Your task to perform on an android device: show emergency info Image 0: 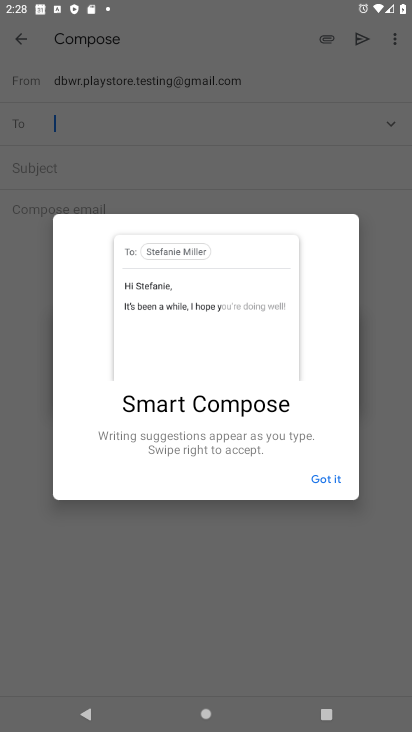
Step 0: press home button
Your task to perform on an android device: show emergency info Image 1: 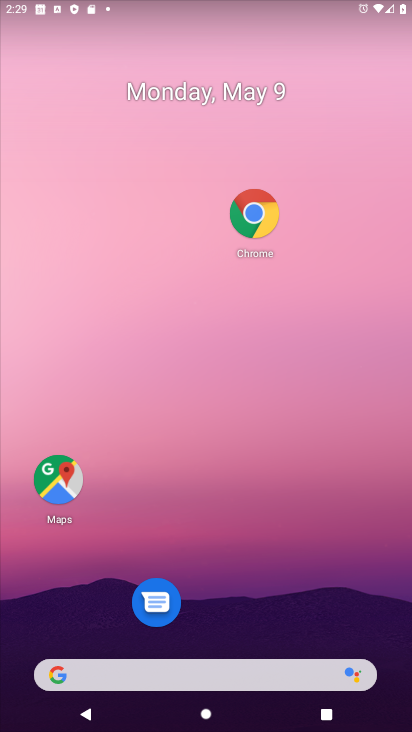
Step 1: drag from (326, 633) to (248, 181)
Your task to perform on an android device: show emergency info Image 2: 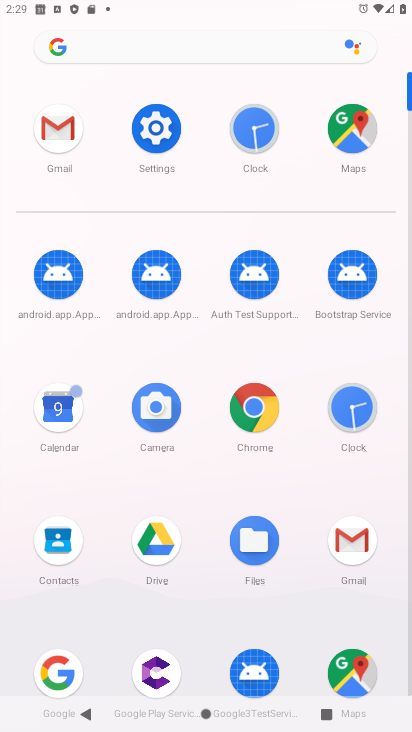
Step 2: click (171, 147)
Your task to perform on an android device: show emergency info Image 3: 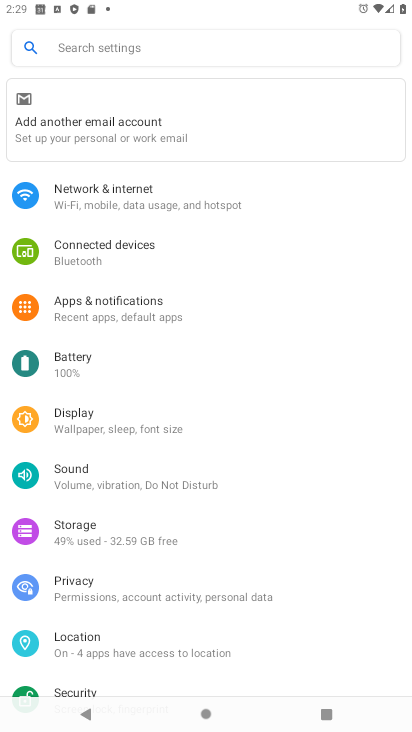
Step 3: drag from (149, 665) to (174, 213)
Your task to perform on an android device: show emergency info Image 4: 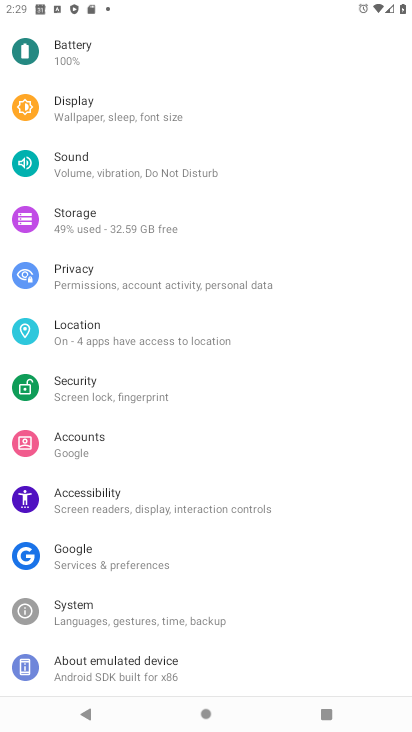
Step 4: click (179, 660)
Your task to perform on an android device: show emergency info Image 5: 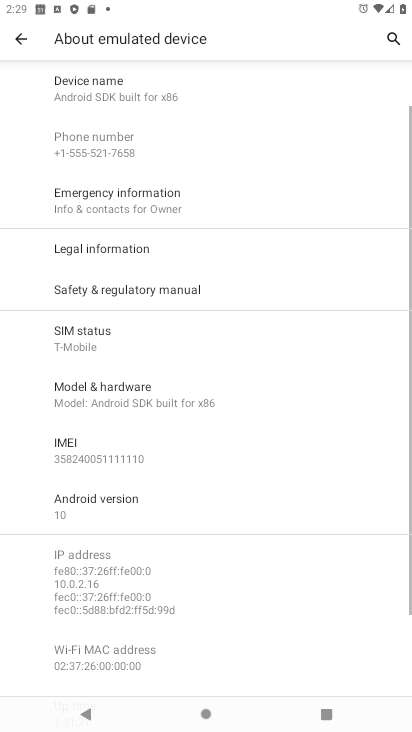
Step 5: click (205, 183)
Your task to perform on an android device: show emergency info Image 6: 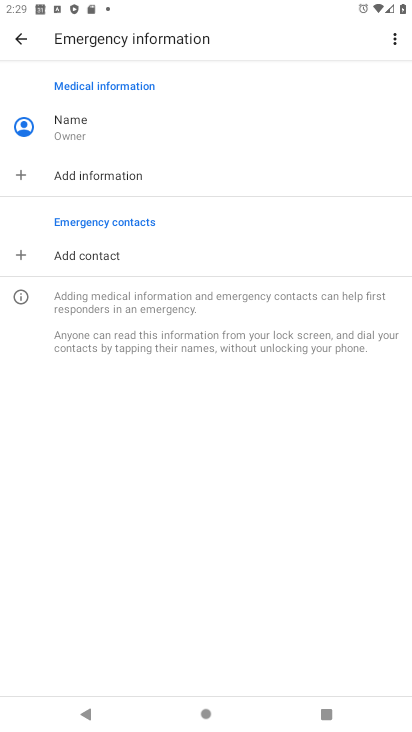
Step 6: task complete